Your task to perform on an android device: show emergency info Image 0: 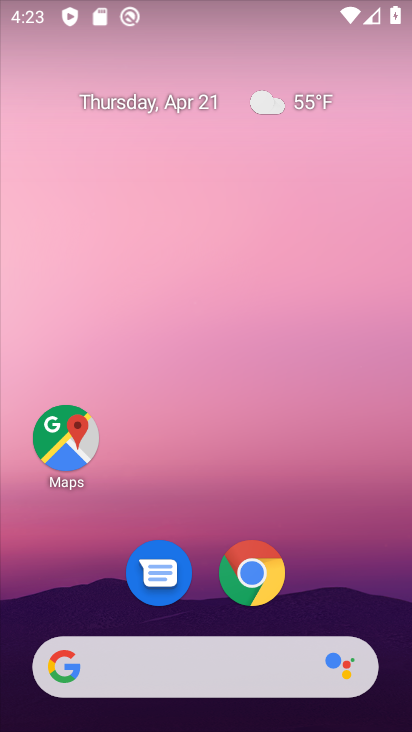
Step 0: drag from (330, 586) to (291, 270)
Your task to perform on an android device: show emergency info Image 1: 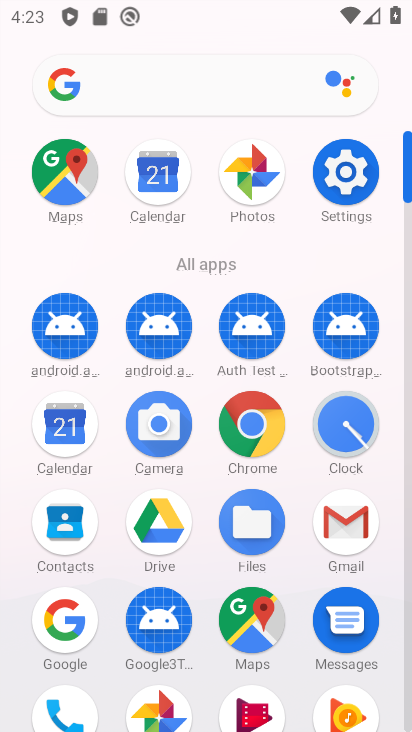
Step 1: click (349, 182)
Your task to perform on an android device: show emergency info Image 2: 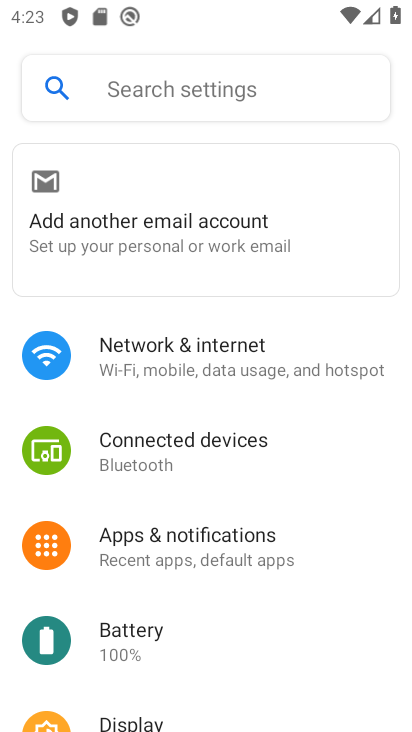
Step 2: drag from (283, 606) to (281, 192)
Your task to perform on an android device: show emergency info Image 3: 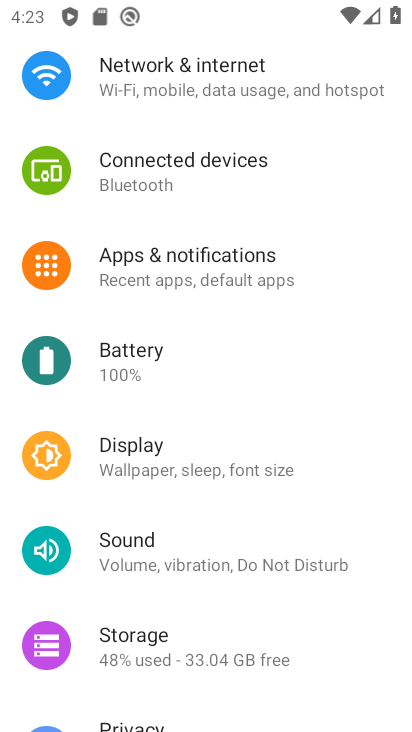
Step 3: drag from (315, 596) to (252, 190)
Your task to perform on an android device: show emergency info Image 4: 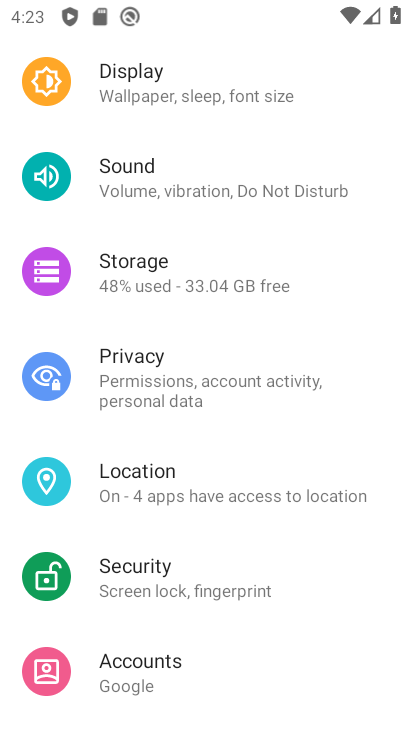
Step 4: drag from (295, 529) to (283, 48)
Your task to perform on an android device: show emergency info Image 5: 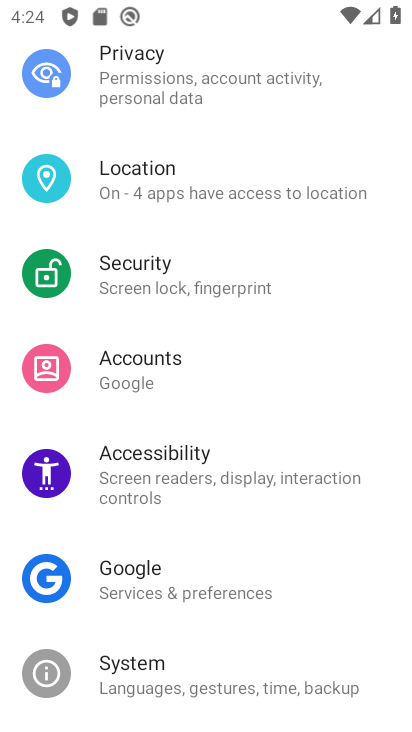
Step 5: drag from (325, 614) to (282, 340)
Your task to perform on an android device: show emergency info Image 6: 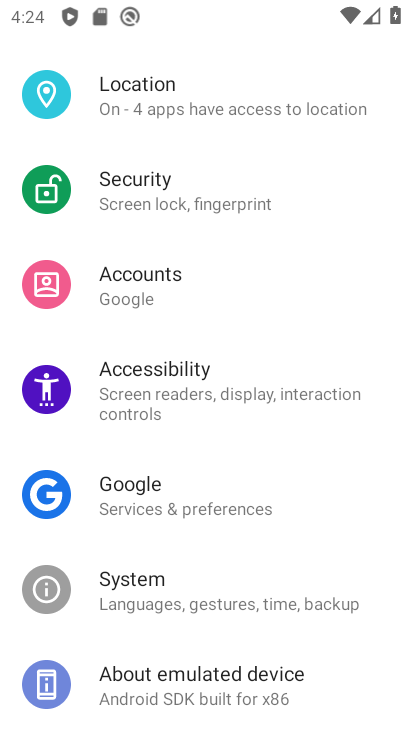
Step 6: click (298, 670)
Your task to perform on an android device: show emergency info Image 7: 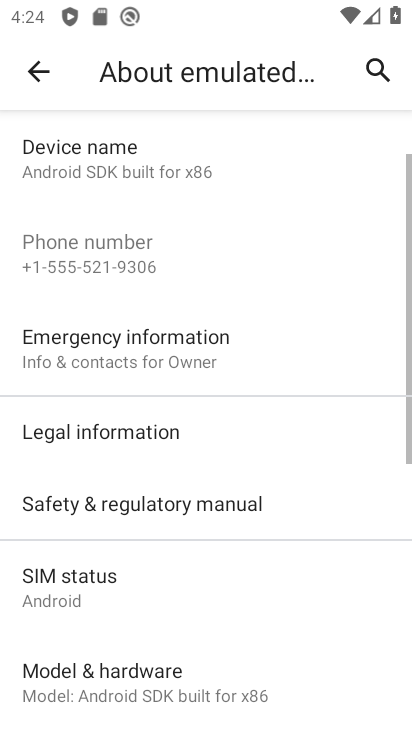
Step 7: click (265, 353)
Your task to perform on an android device: show emergency info Image 8: 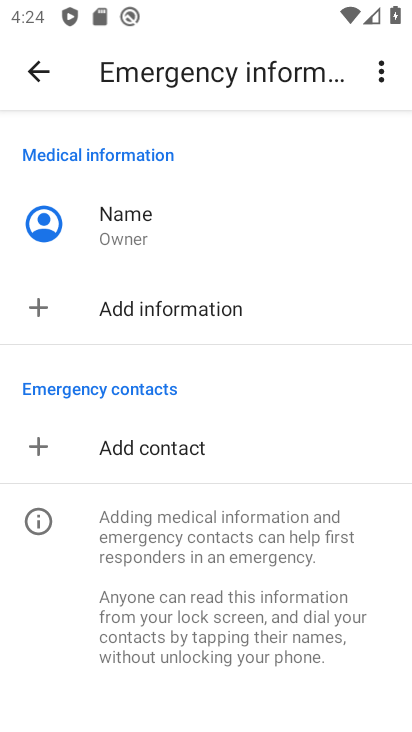
Step 8: task complete